Your task to perform on an android device: toggle sleep mode Image 0: 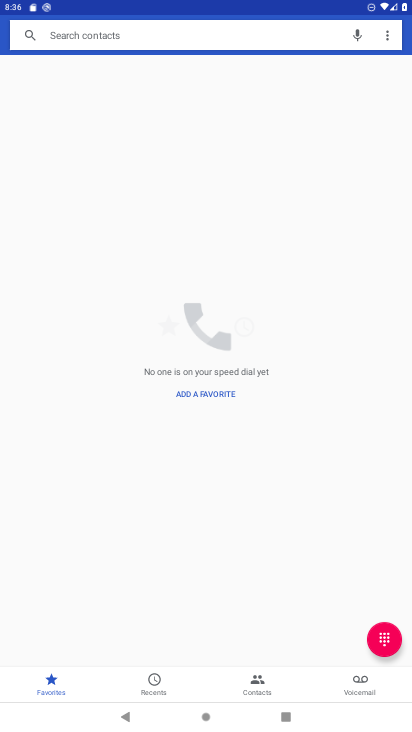
Step 0: press home button
Your task to perform on an android device: toggle sleep mode Image 1: 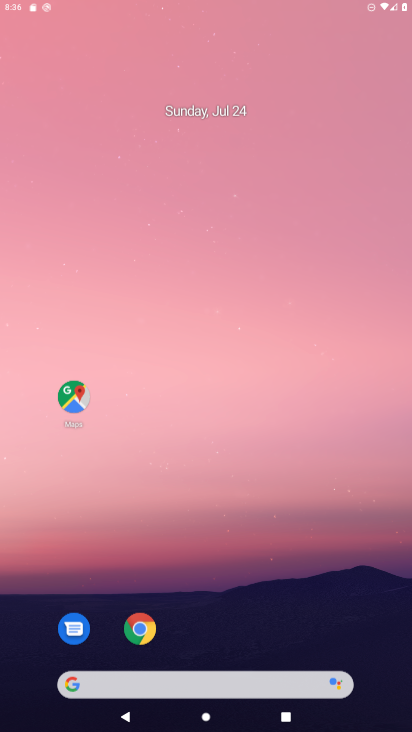
Step 1: drag from (335, 595) to (166, 30)
Your task to perform on an android device: toggle sleep mode Image 2: 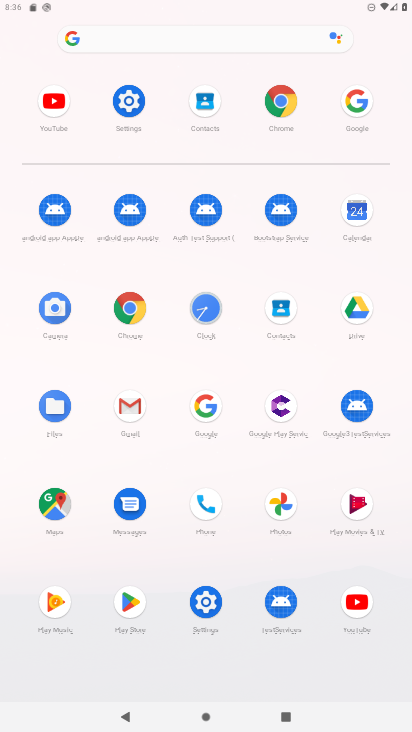
Step 2: click (129, 109)
Your task to perform on an android device: toggle sleep mode Image 3: 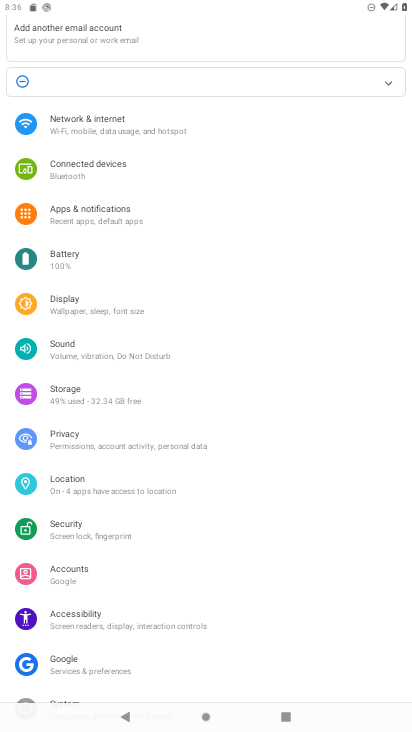
Step 3: task complete